Your task to perform on an android device: Is it going to rain this weekend? Image 0: 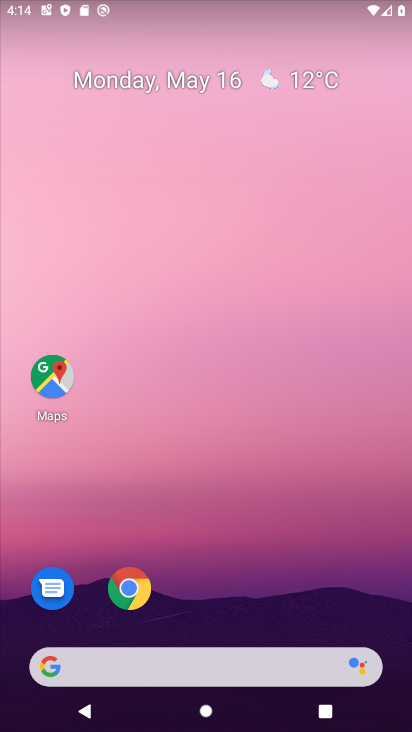
Step 0: click (312, 74)
Your task to perform on an android device: Is it going to rain this weekend? Image 1: 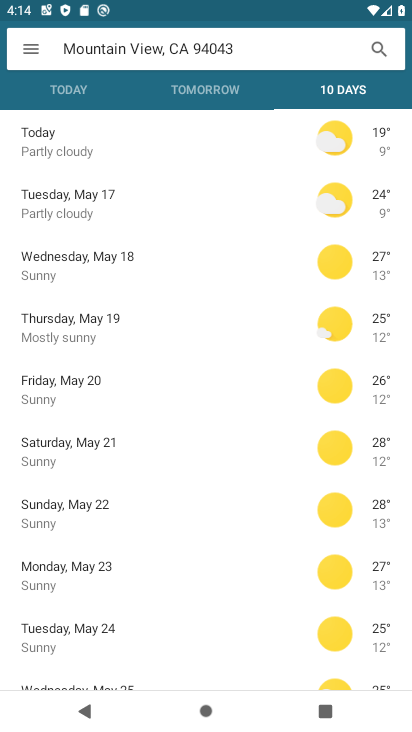
Step 1: task complete